Your task to perform on an android device: toggle show notifications on the lock screen Image 0: 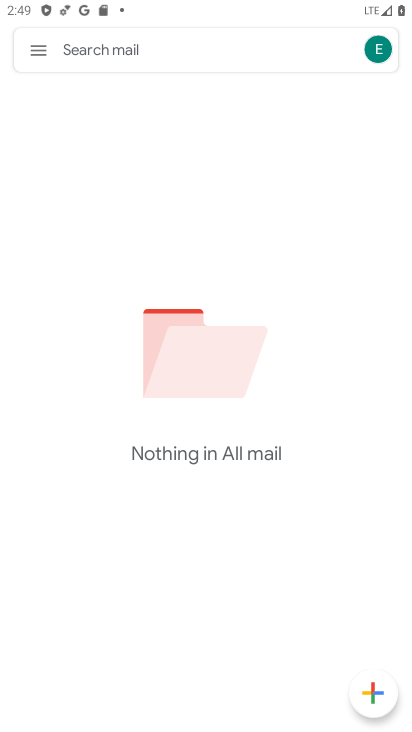
Step 0: press home button
Your task to perform on an android device: toggle show notifications on the lock screen Image 1: 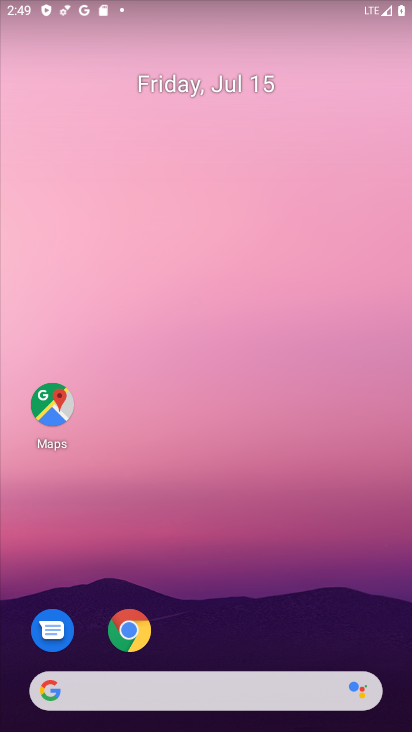
Step 1: drag from (225, 680) to (217, 27)
Your task to perform on an android device: toggle show notifications on the lock screen Image 2: 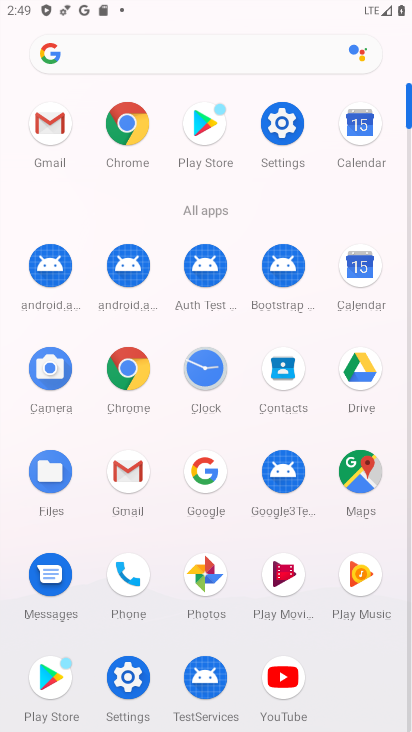
Step 2: click (263, 127)
Your task to perform on an android device: toggle show notifications on the lock screen Image 3: 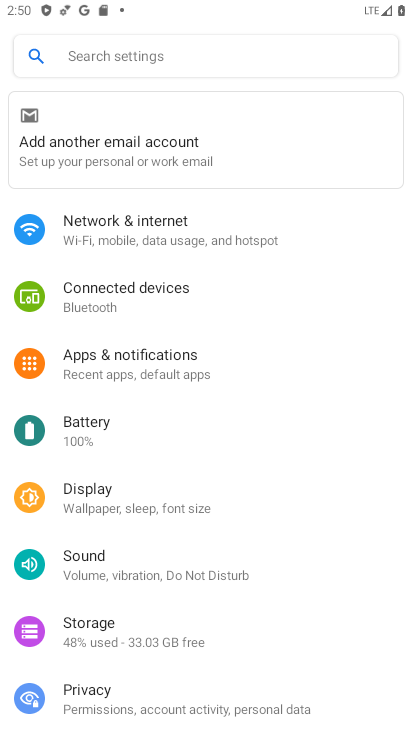
Step 3: click (126, 376)
Your task to perform on an android device: toggle show notifications on the lock screen Image 4: 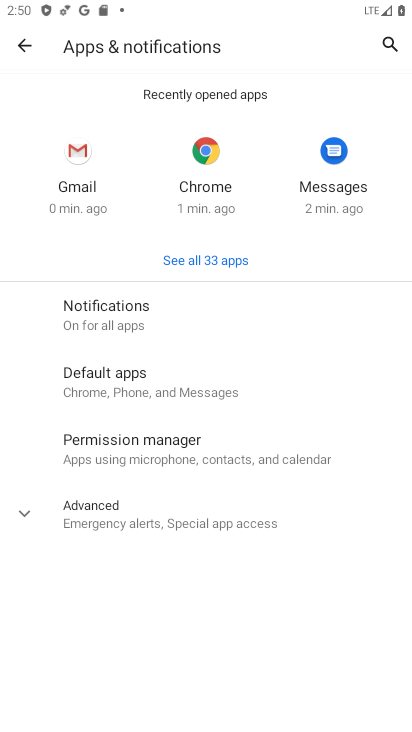
Step 4: click (104, 333)
Your task to perform on an android device: toggle show notifications on the lock screen Image 5: 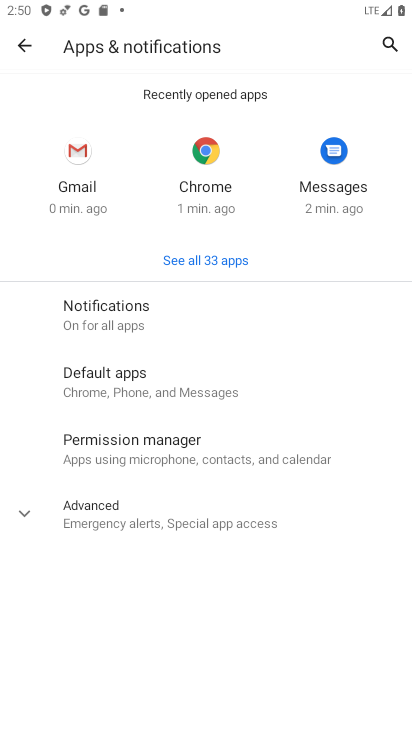
Step 5: click (104, 333)
Your task to perform on an android device: toggle show notifications on the lock screen Image 6: 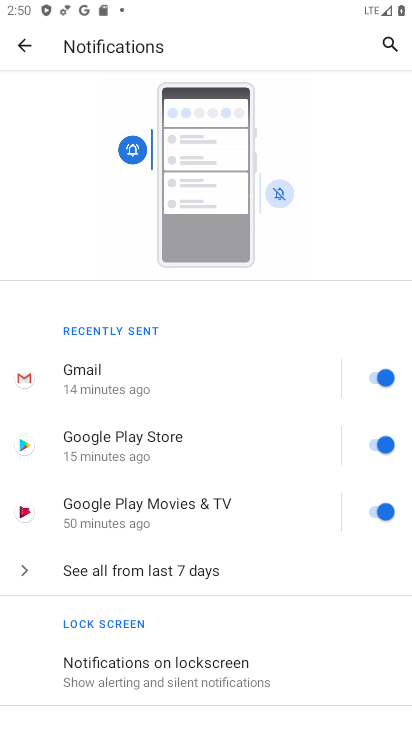
Step 6: click (174, 681)
Your task to perform on an android device: toggle show notifications on the lock screen Image 7: 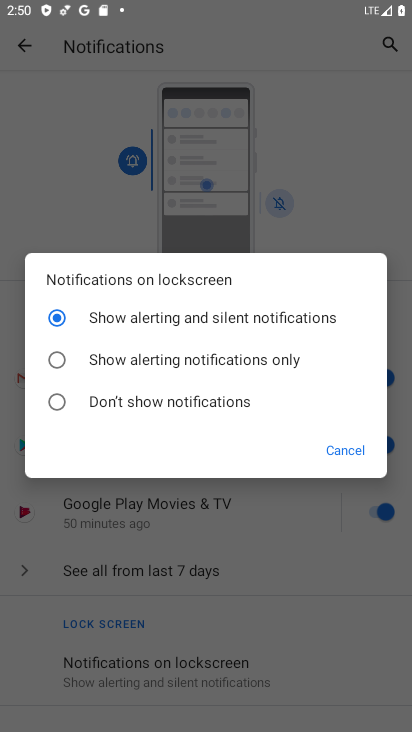
Step 7: click (149, 323)
Your task to perform on an android device: toggle show notifications on the lock screen Image 8: 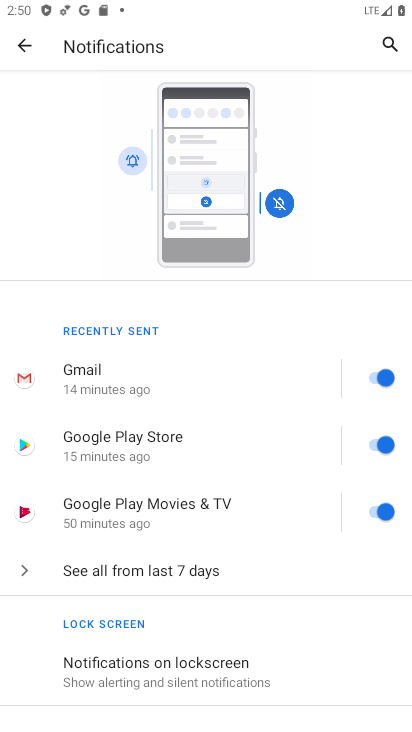
Step 8: task complete